Your task to perform on an android device: turn smart compose on in the gmail app Image 0: 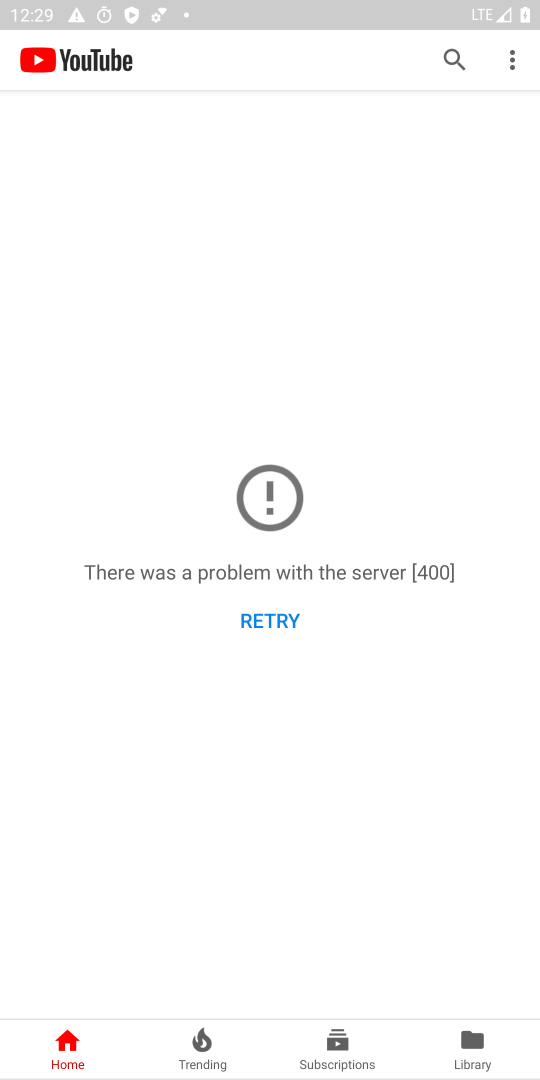
Step 0: press home button
Your task to perform on an android device: turn smart compose on in the gmail app Image 1: 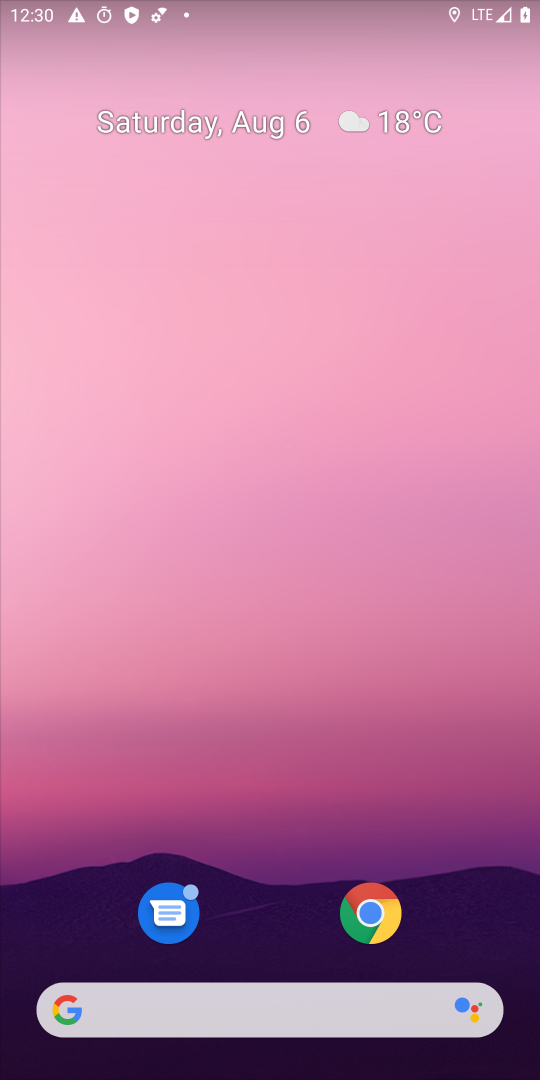
Step 1: drag from (298, 850) to (338, 180)
Your task to perform on an android device: turn smart compose on in the gmail app Image 2: 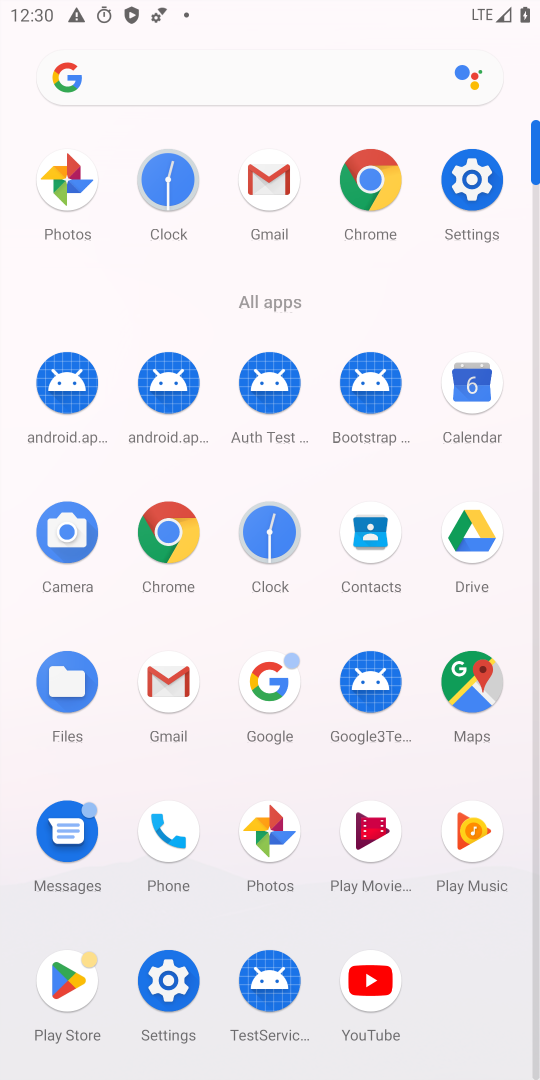
Step 2: click (179, 671)
Your task to perform on an android device: turn smart compose on in the gmail app Image 3: 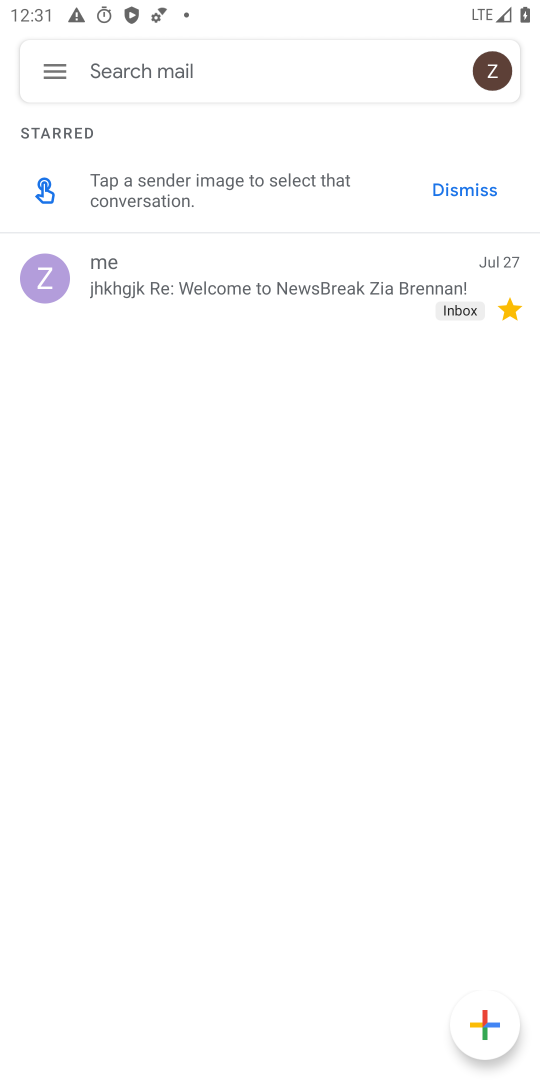
Step 3: click (49, 60)
Your task to perform on an android device: turn smart compose on in the gmail app Image 4: 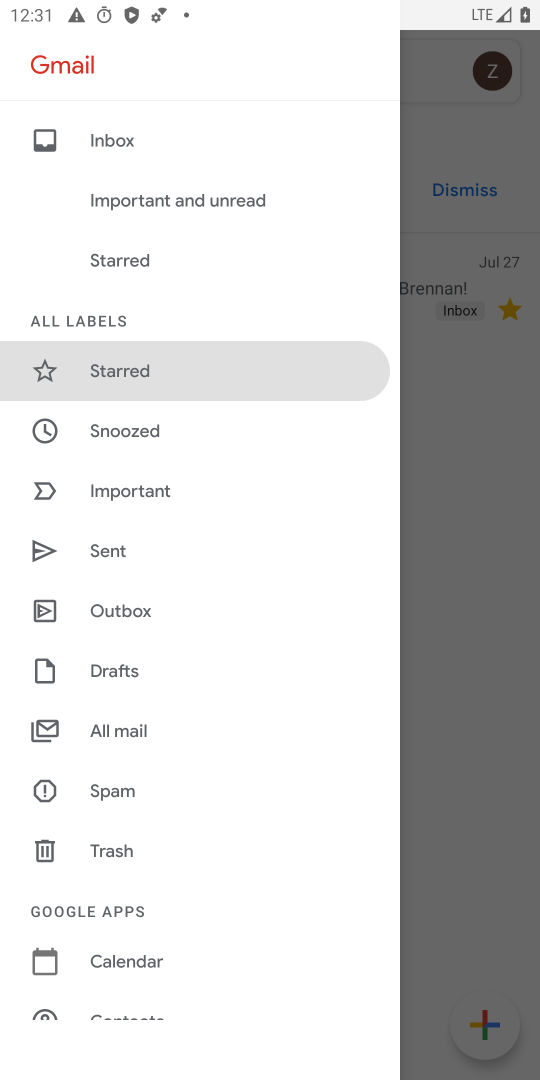
Step 4: drag from (290, 782) to (286, 504)
Your task to perform on an android device: turn smart compose on in the gmail app Image 5: 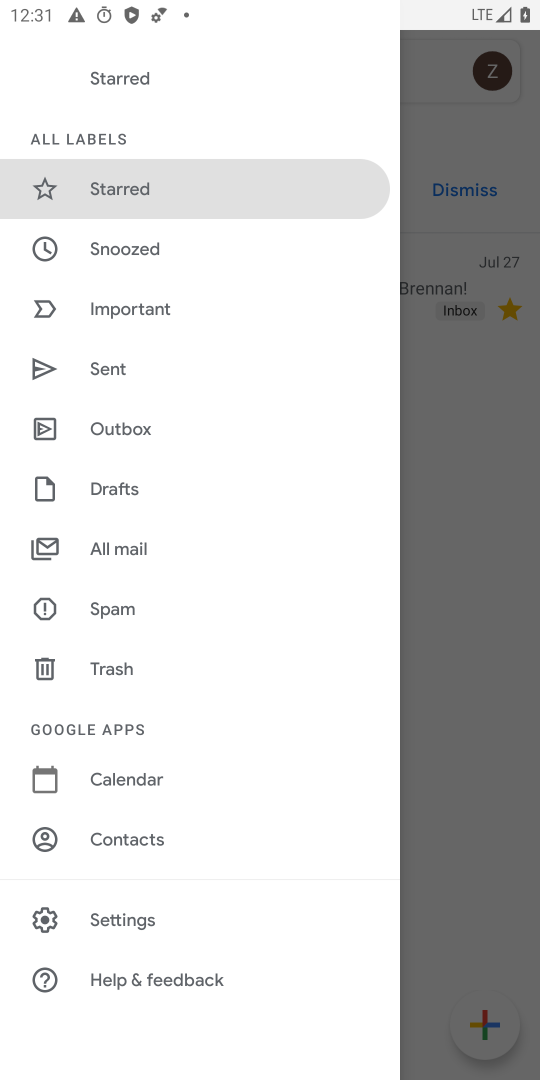
Step 5: click (152, 930)
Your task to perform on an android device: turn smart compose on in the gmail app Image 6: 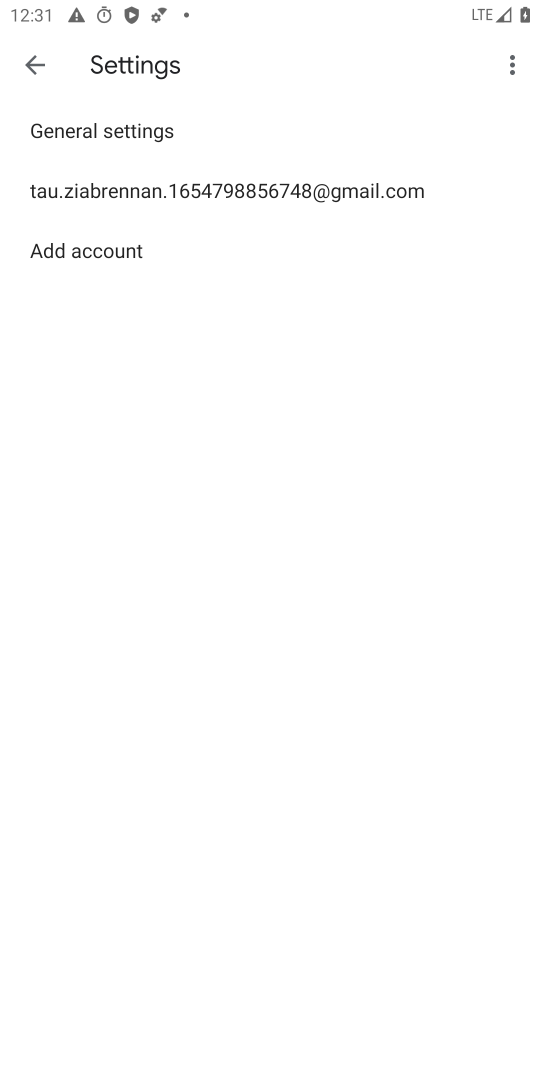
Step 6: click (368, 194)
Your task to perform on an android device: turn smart compose on in the gmail app Image 7: 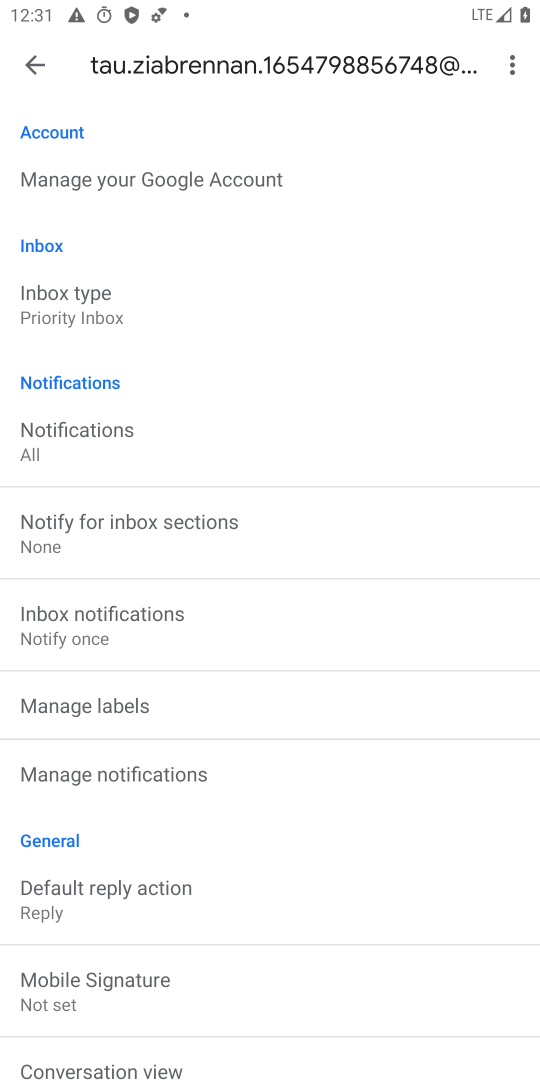
Step 7: task complete